Your task to perform on an android device: Open Android settings Image 0: 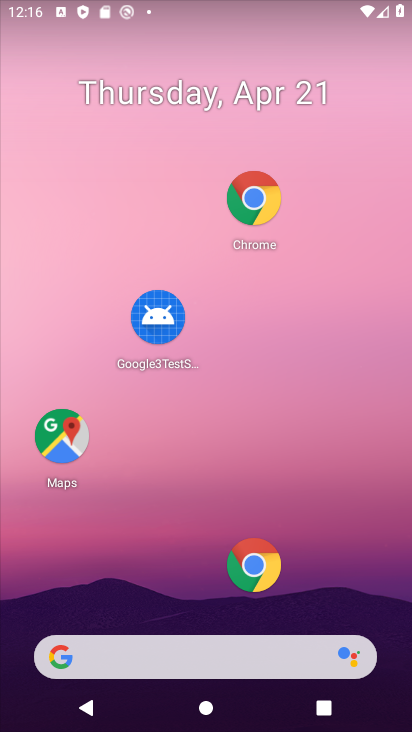
Step 0: drag from (203, 568) to (219, 83)
Your task to perform on an android device: Open Android settings Image 1: 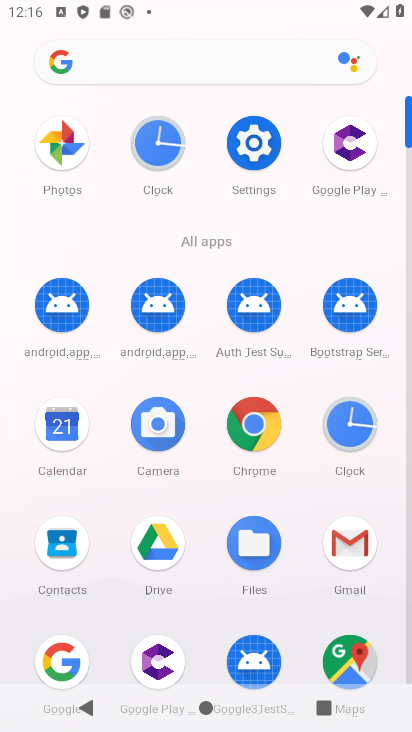
Step 1: click (242, 157)
Your task to perform on an android device: Open Android settings Image 2: 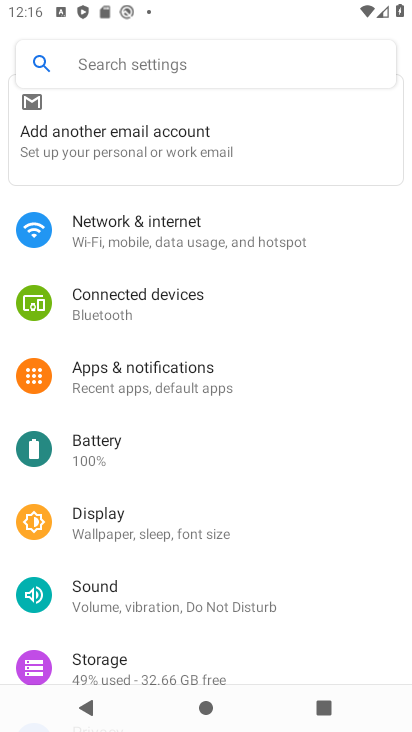
Step 2: task complete